Your task to perform on an android device: turn on location history Image 0: 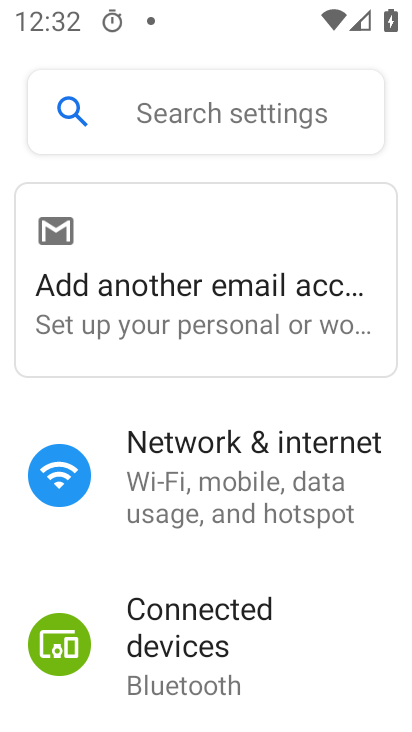
Step 0: drag from (208, 559) to (144, 221)
Your task to perform on an android device: turn on location history Image 1: 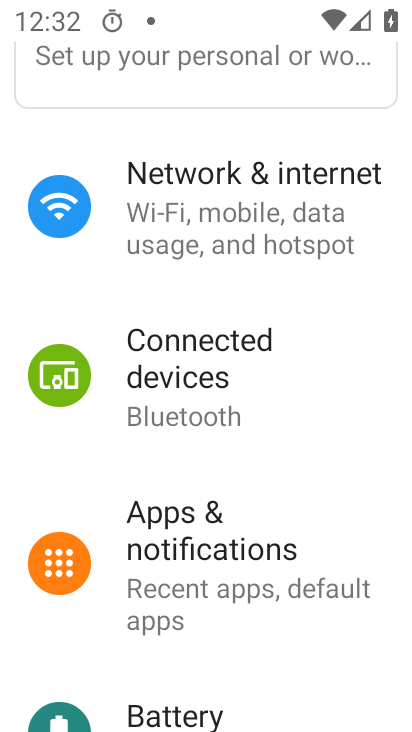
Step 1: drag from (267, 546) to (213, 238)
Your task to perform on an android device: turn on location history Image 2: 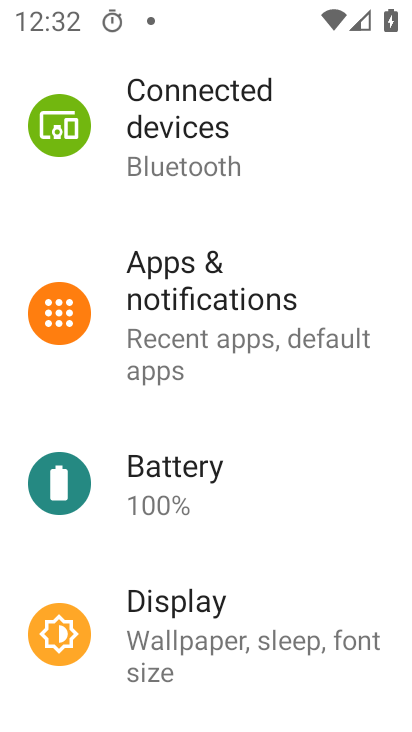
Step 2: drag from (230, 599) to (183, 233)
Your task to perform on an android device: turn on location history Image 3: 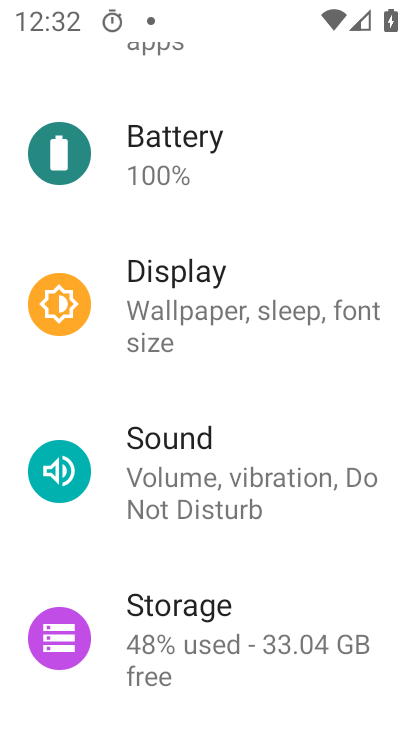
Step 3: drag from (239, 561) to (209, 211)
Your task to perform on an android device: turn on location history Image 4: 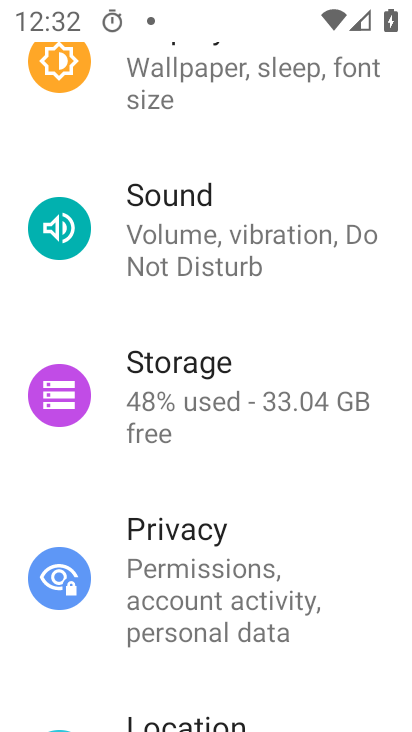
Step 4: drag from (186, 567) to (124, 141)
Your task to perform on an android device: turn on location history Image 5: 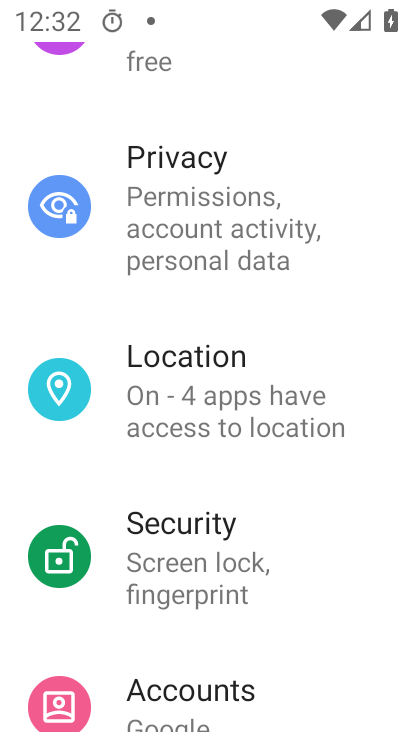
Step 5: click (161, 367)
Your task to perform on an android device: turn on location history Image 6: 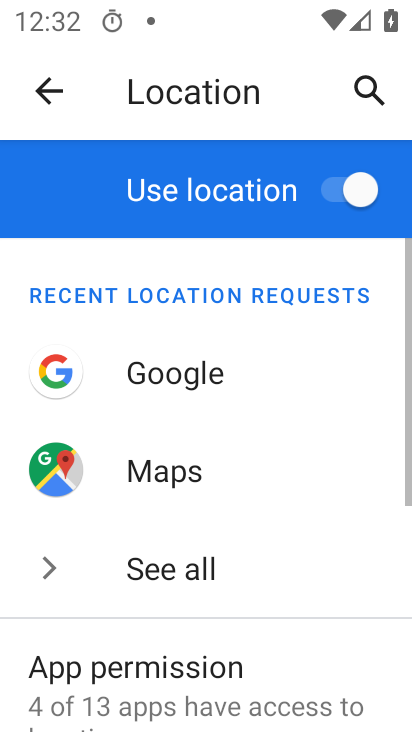
Step 6: task complete